Your task to perform on an android device: Do I have any events tomorrow? Image 0: 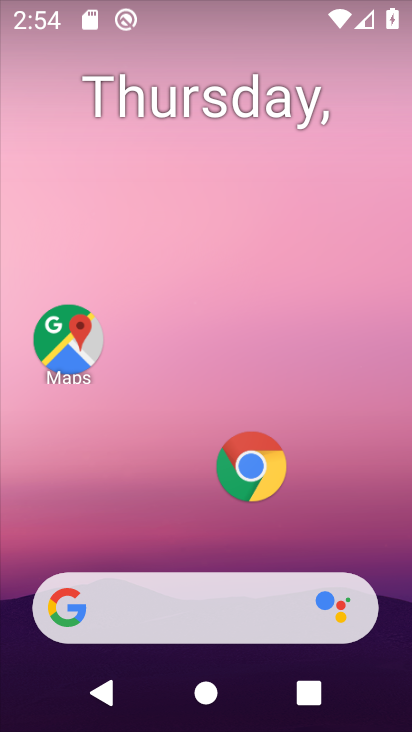
Step 0: drag from (222, 533) to (222, 197)
Your task to perform on an android device: Do I have any events tomorrow? Image 1: 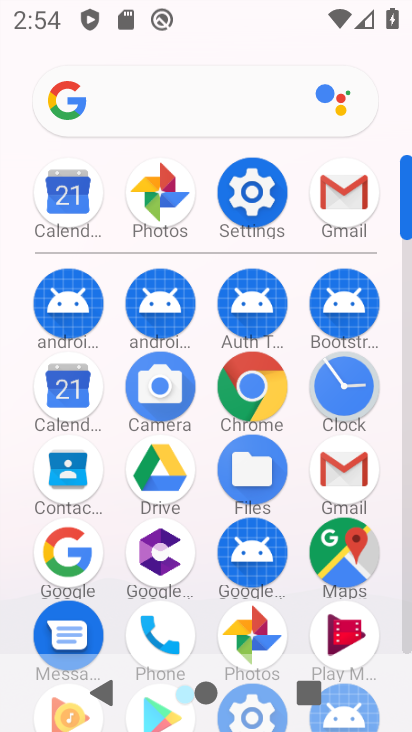
Step 1: click (77, 396)
Your task to perform on an android device: Do I have any events tomorrow? Image 2: 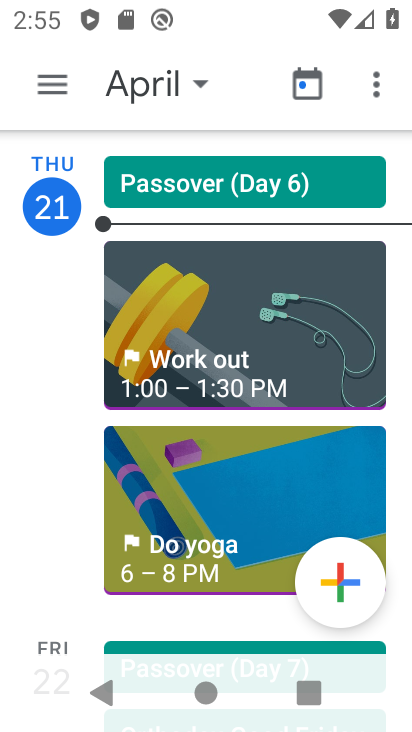
Step 2: click (161, 89)
Your task to perform on an android device: Do I have any events tomorrow? Image 3: 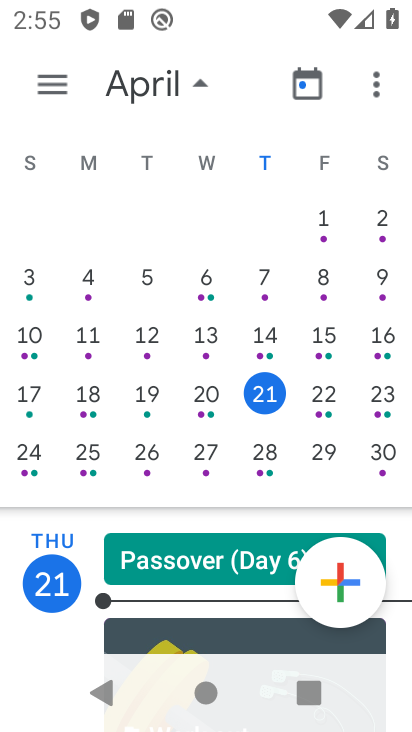
Step 3: click (317, 395)
Your task to perform on an android device: Do I have any events tomorrow? Image 4: 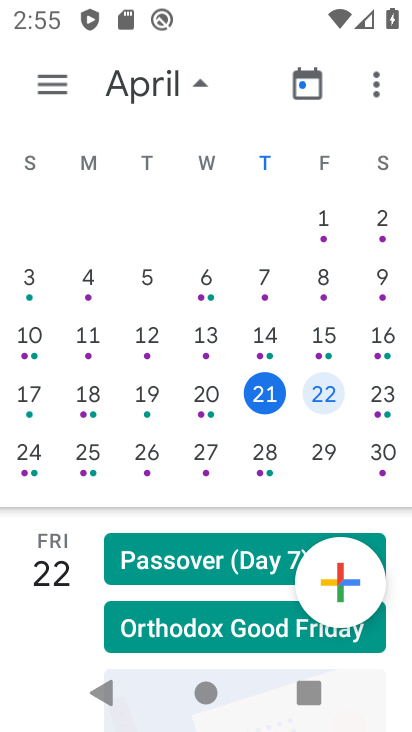
Step 4: drag from (231, 569) to (232, 308)
Your task to perform on an android device: Do I have any events tomorrow? Image 5: 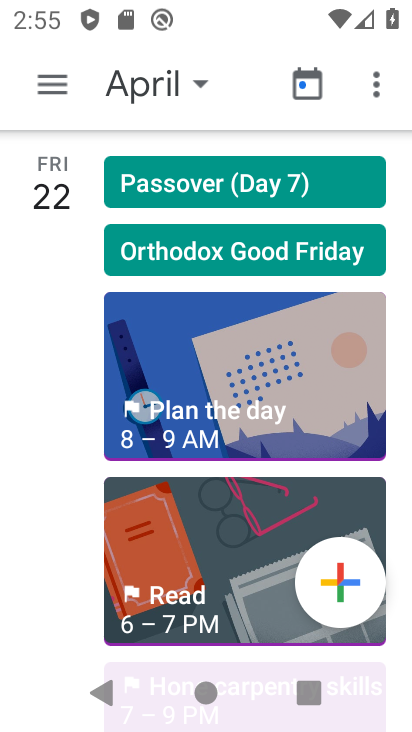
Step 5: click (196, 260)
Your task to perform on an android device: Do I have any events tomorrow? Image 6: 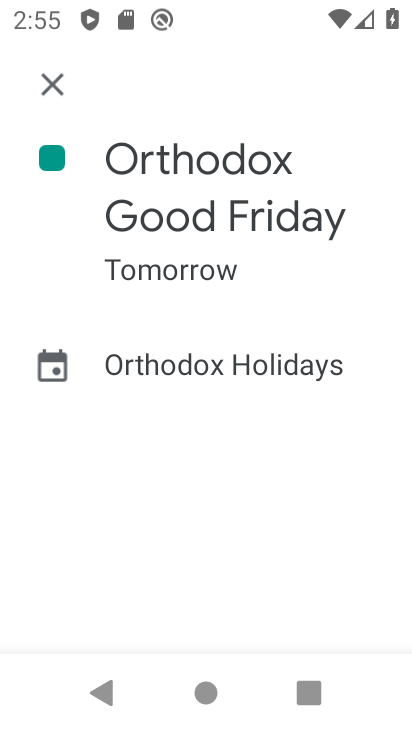
Step 6: task complete